Your task to perform on an android device: remove spam from my inbox in the gmail app Image 0: 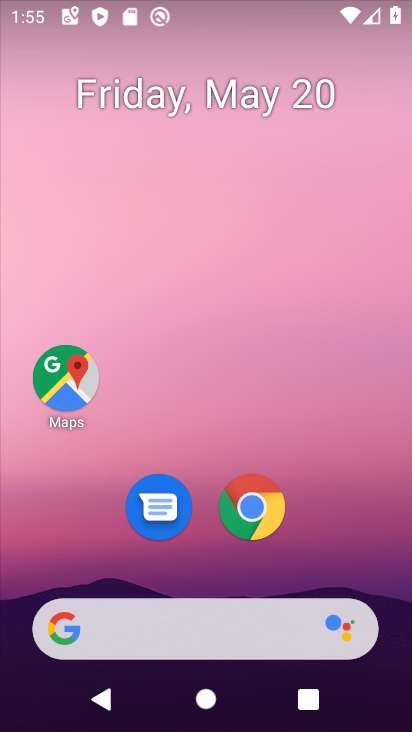
Step 0: drag from (187, 719) to (189, 155)
Your task to perform on an android device: remove spam from my inbox in the gmail app Image 1: 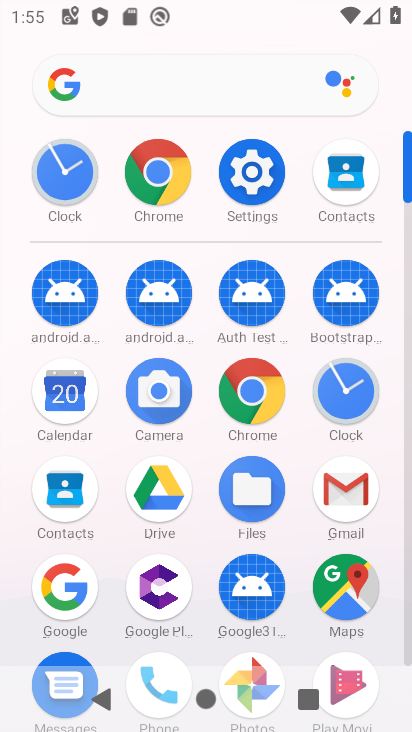
Step 1: click (325, 478)
Your task to perform on an android device: remove spam from my inbox in the gmail app Image 2: 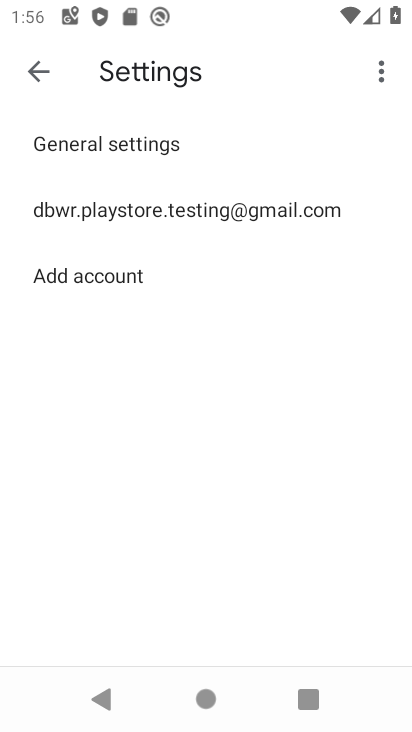
Step 2: click (35, 70)
Your task to perform on an android device: remove spam from my inbox in the gmail app Image 3: 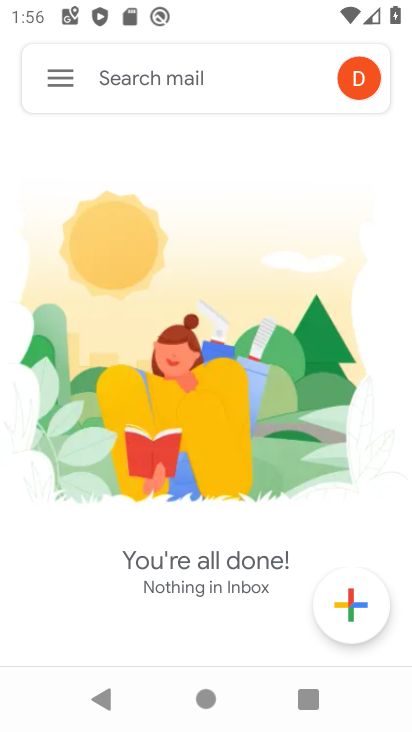
Step 3: task complete